Your task to perform on an android device: Go to Yahoo.com Image 0: 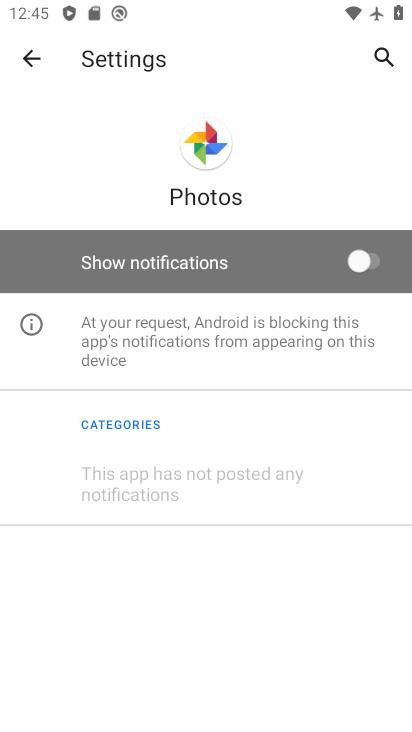
Step 0: press home button
Your task to perform on an android device: Go to Yahoo.com Image 1: 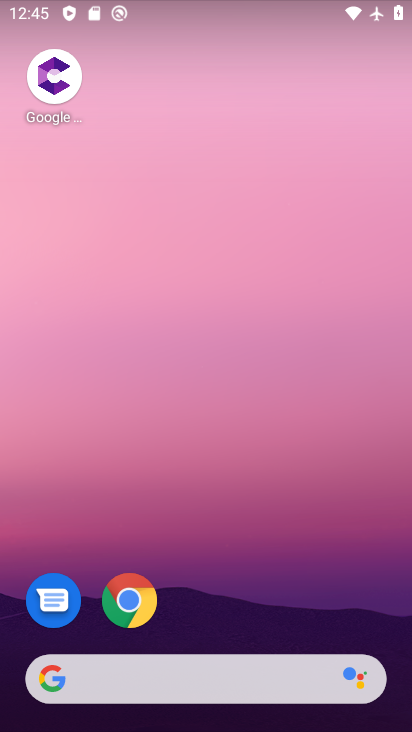
Step 1: click (144, 581)
Your task to perform on an android device: Go to Yahoo.com Image 2: 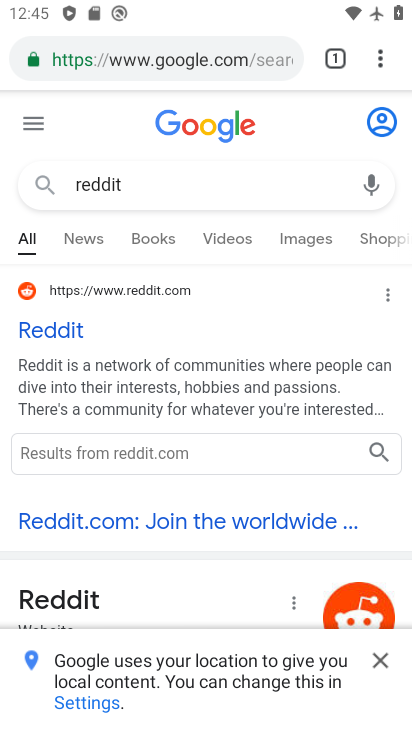
Step 2: click (240, 63)
Your task to perform on an android device: Go to Yahoo.com Image 3: 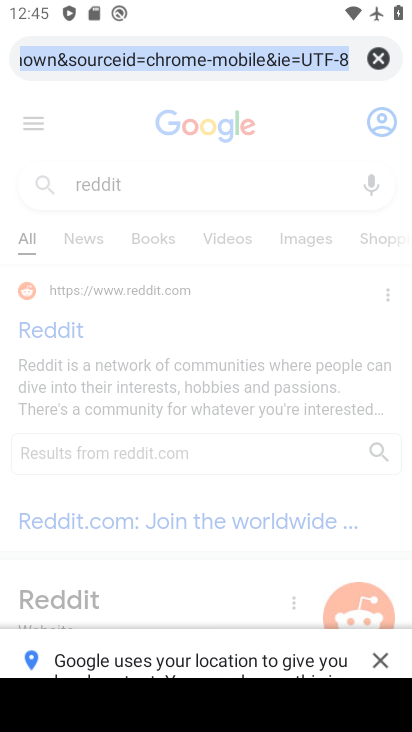
Step 3: type "yahoo"
Your task to perform on an android device: Go to Yahoo.com Image 4: 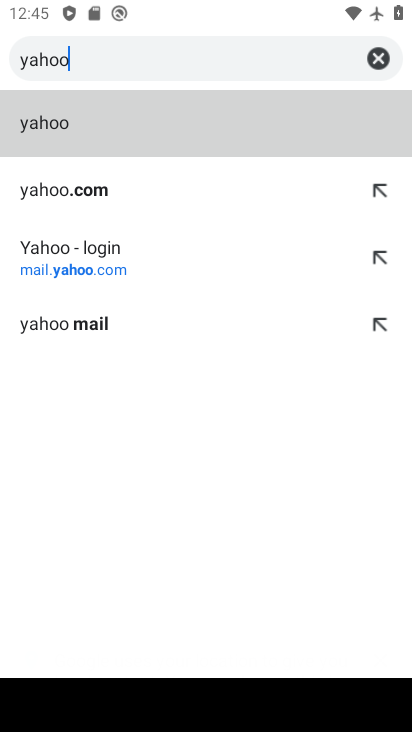
Step 4: click (143, 262)
Your task to perform on an android device: Go to Yahoo.com Image 5: 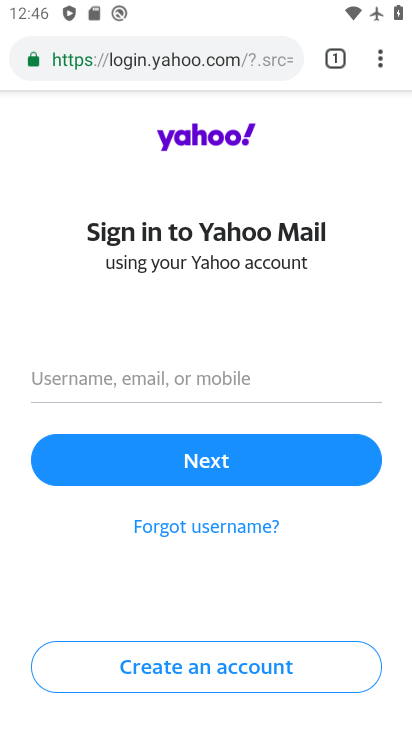
Step 5: task complete